Your task to perform on an android device: change timer sound Image 0: 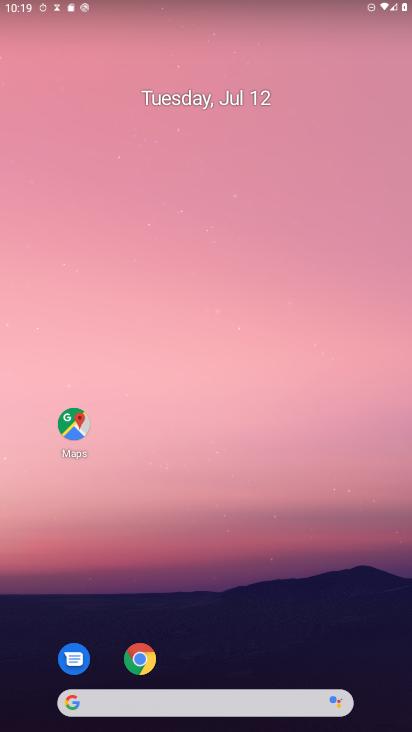
Step 0: drag from (223, 700) to (293, 342)
Your task to perform on an android device: change timer sound Image 1: 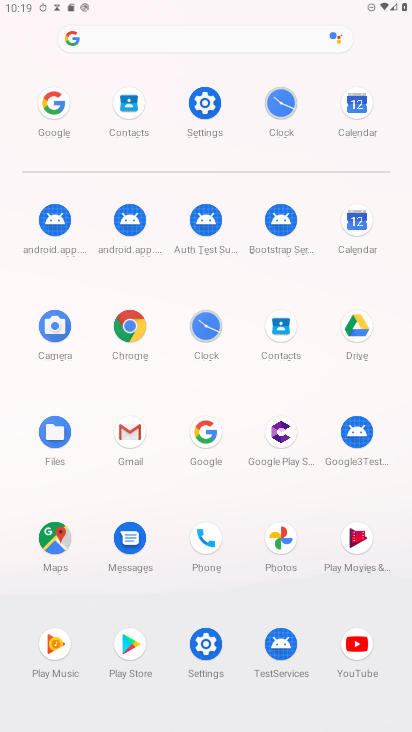
Step 1: click (281, 105)
Your task to perform on an android device: change timer sound Image 2: 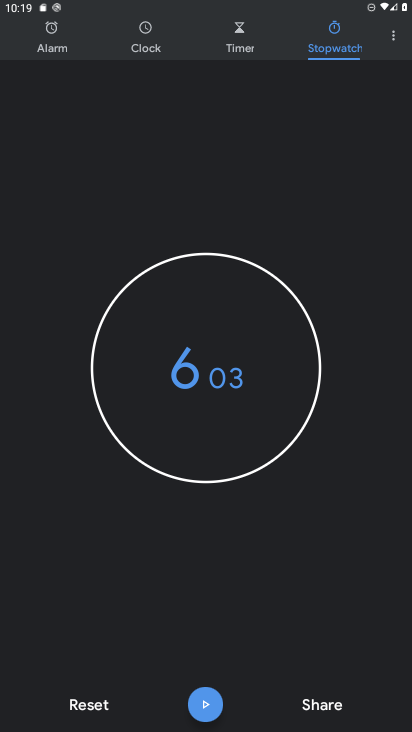
Step 2: click (394, 41)
Your task to perform on an android device: change timer sound Image 3: 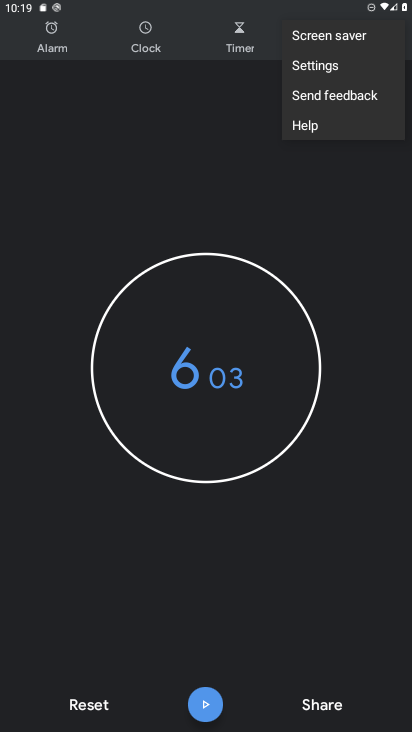
Step 3: click (331, 70)
Your task to perform on an android device: change timer sound Image 4: 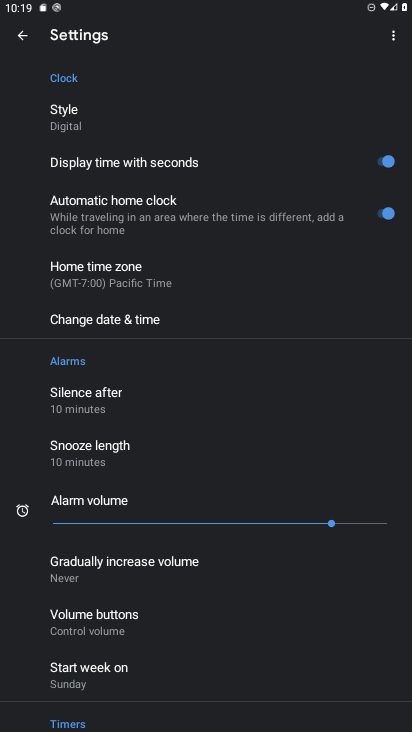
Step 4: drag from (240, 554) to (269, 459)
Your task to perform on an android device: change timer sound Image 5: 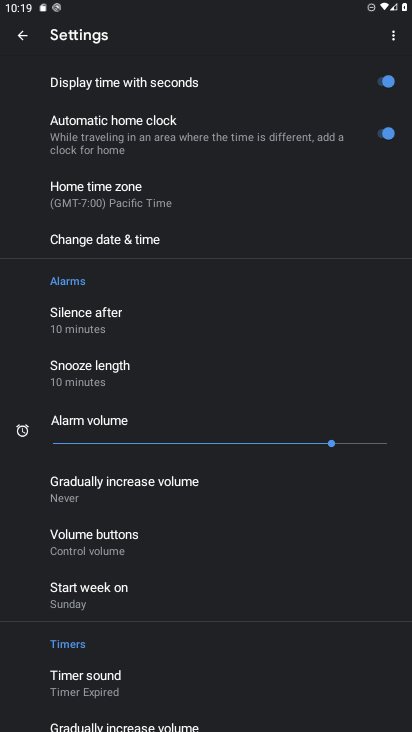
Step 5: click (111, 674)
Your task to perform on an android device: change timer sound Image 6: 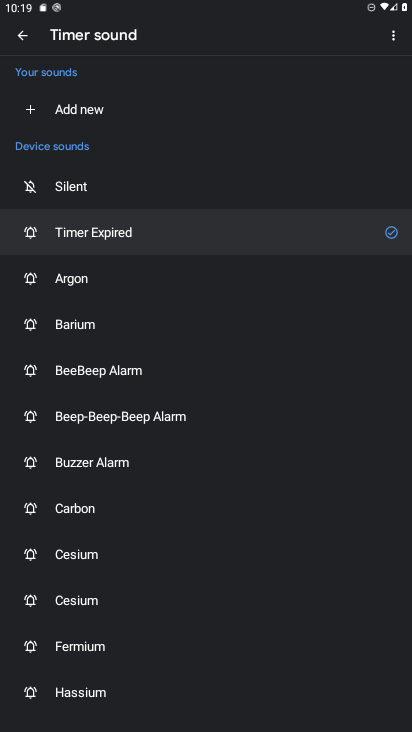
Step 6: drag from (167, 558) to (235, 368)
Your task to perform on an android device: change timer sound Image 7: 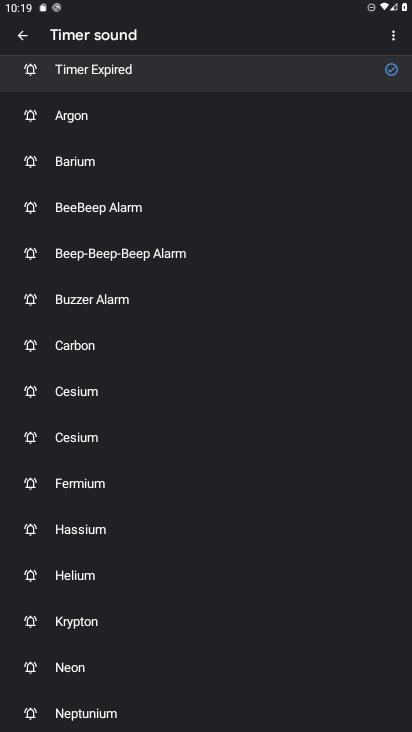
Step 7: click (134, 478)
Your task to perform on an android device: change timer sound Image 8: 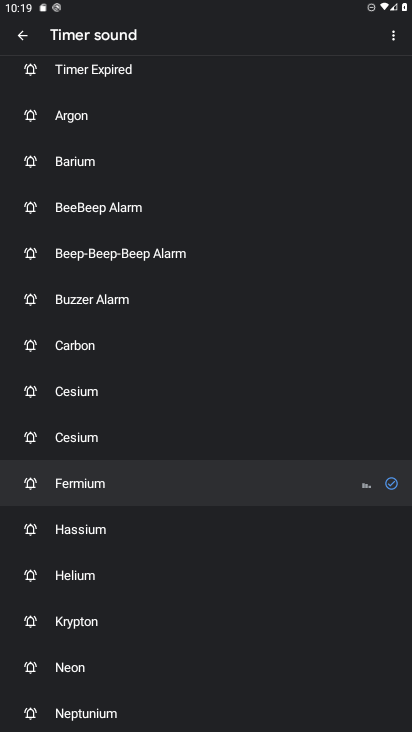
Step 8: task complete